Your task to perform on an android device: Go to Amazon Image 0: 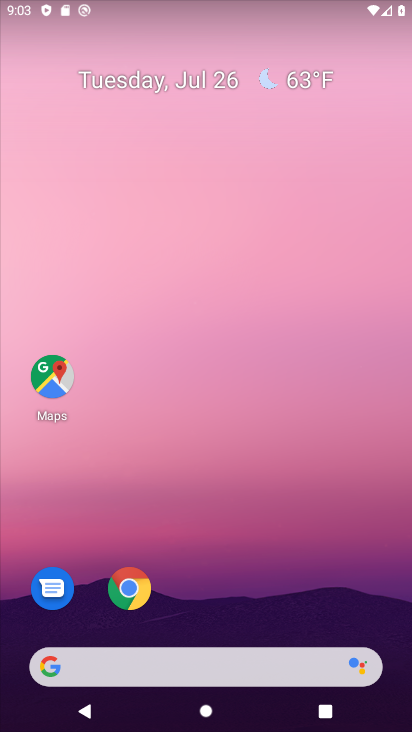
Step 0: click (133, 579)
Your task to perform on an android device: Go to Amazon Image 1: 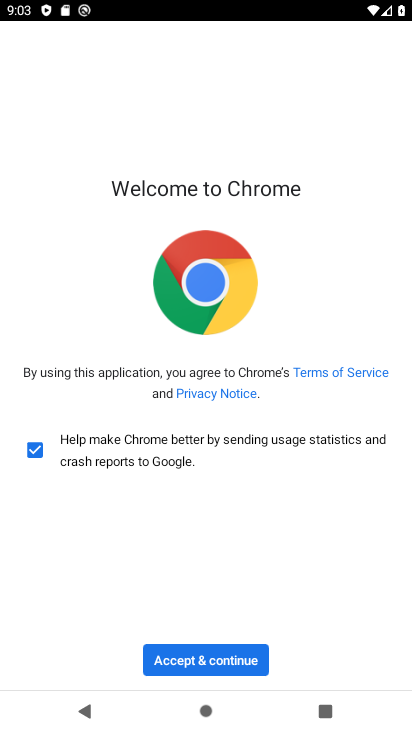
Step 1: click (221, 660)
Your task to perform on an android device: Go to Amazon Image 2: 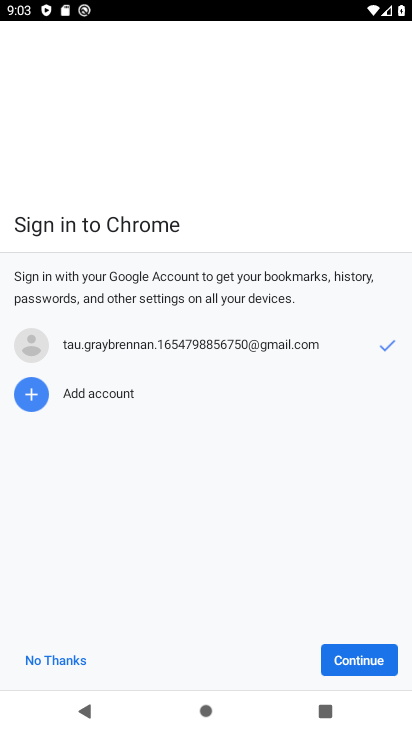
Step 2: click (365, 655)
Your task to perform on an android device: Go to Amazon Image 3: 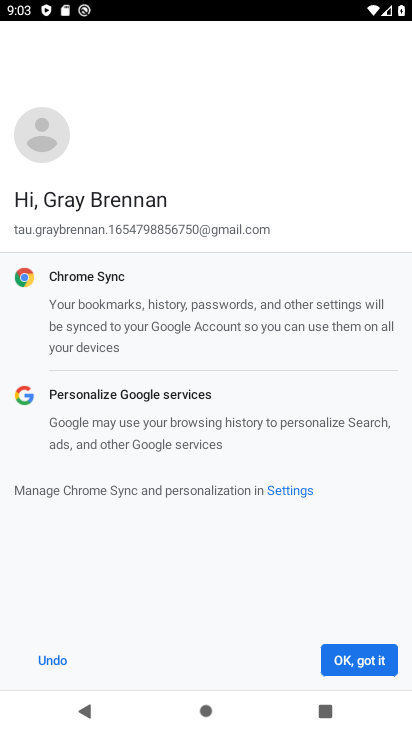
Step 3: click (365, 655)
Your task to perform on an android device: Go to Amazon Image 4: 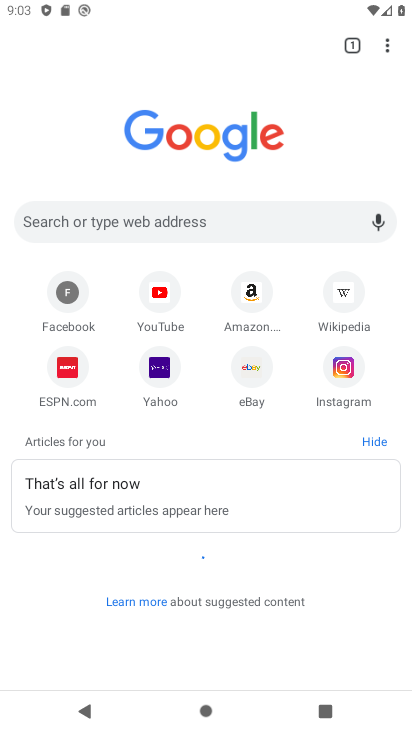
Step 4: click (240, 290)
Your task to perform on an android device: Go to Amazon Image 5: 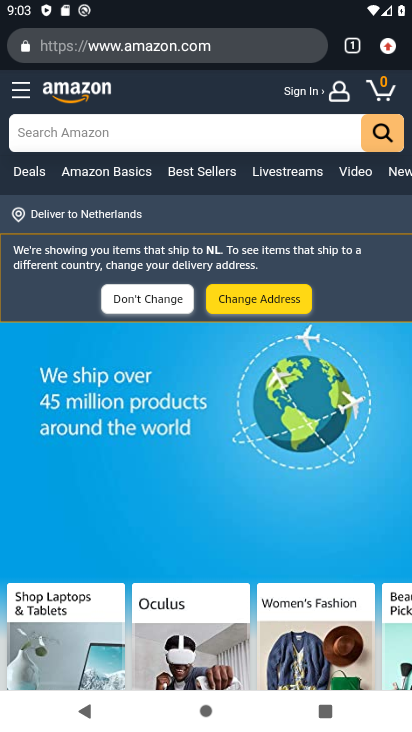
Step 5: task complete